Your task to perform on an android device: turn on data saver in the chrome app Image 0: 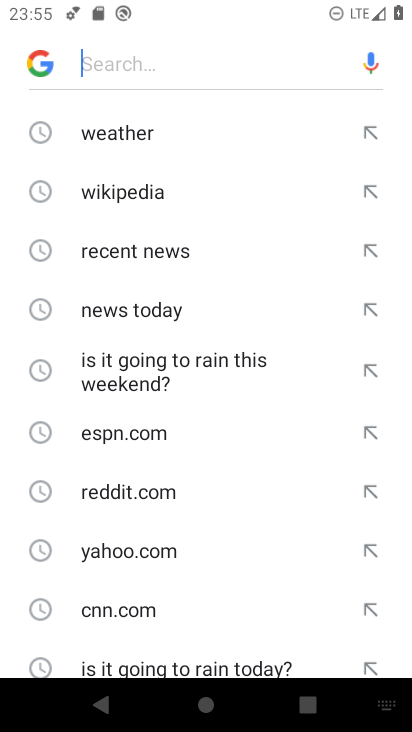
Step 0: press home button
Your task to perform on an android device: turn on data saver in the chrome app Image 1: 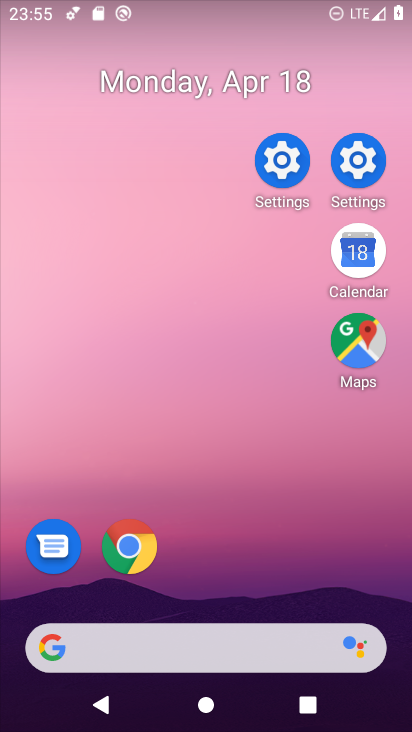
Step 1: drag from (289, 710) to (197, 172)
Your task to perform on an android device: turn on data saver in the chrome app Image 2: 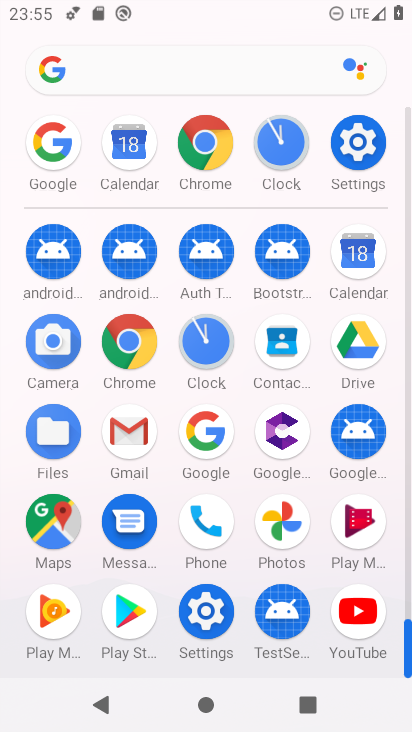
Step 2: click (202, 140)
Your task to perform on an android device: turn on data saver in the chrome app Image 3: 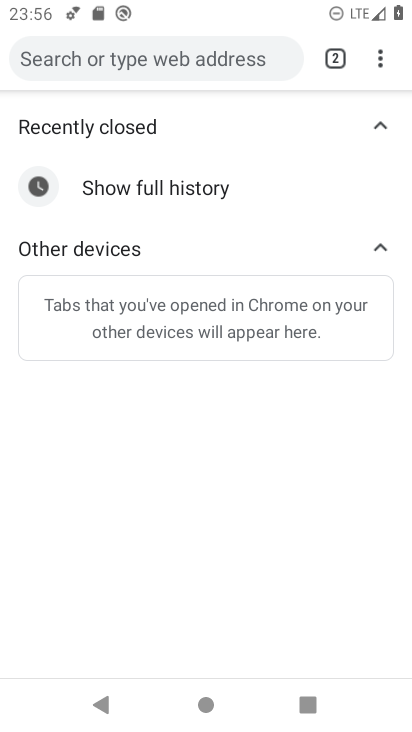
Step 3: press home button
Your task to perform on an android device: turn on data saver in the chrome app Image 4: 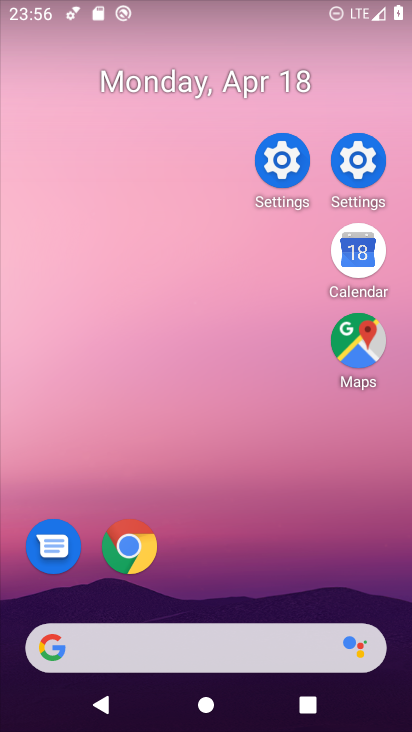
Step 4: drag from (224, 462) to (172, 100)
Your task to perform on an android device: turn on data saver in the chrome app Image 5: 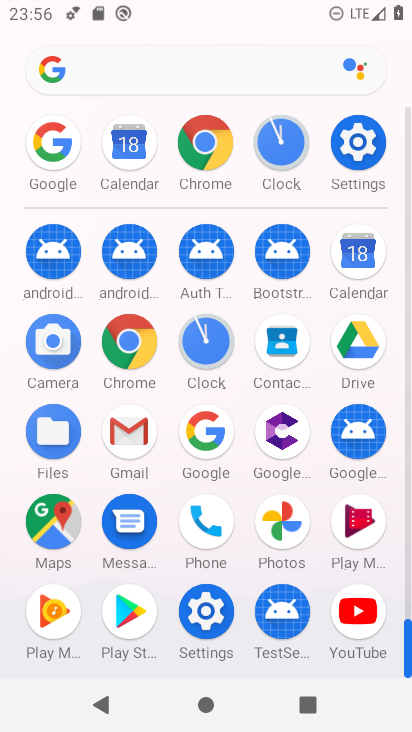
Step 5: click (195, 143)
Your task to perform on an android device: turn on data saver in the chrome app Image 6: 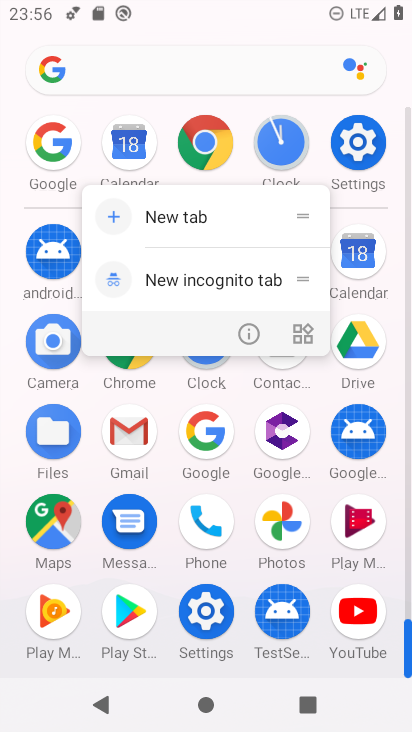
Step 6: click (196, 142)
Your task to perform on an android device: turn on data saver in the chrome app Image 7: 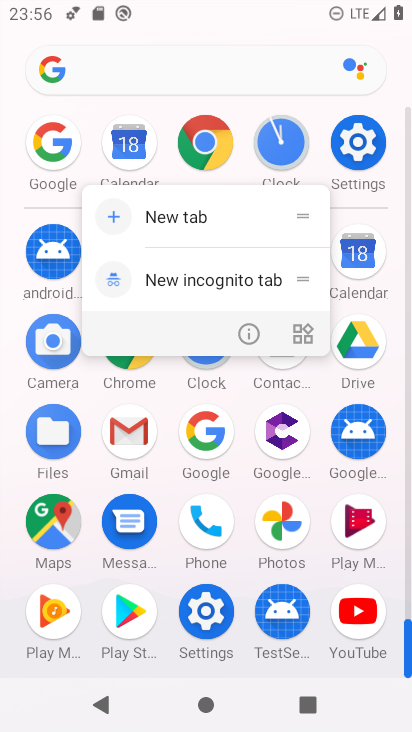
Step 7: click (196, 142)
Your task to perform on an android device: turn on data saver in the chrome app Image 8: 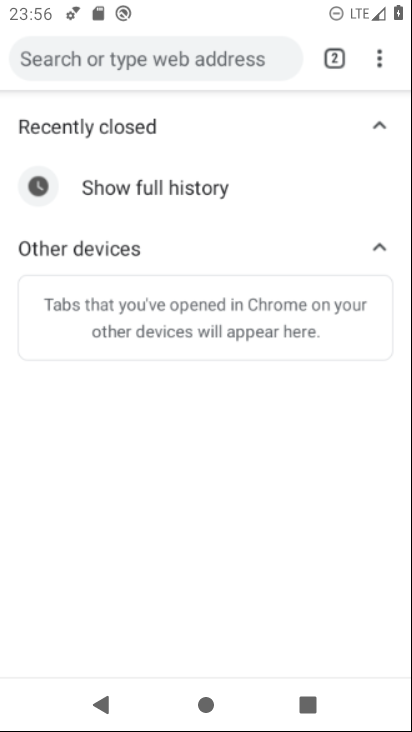
Step 8: click (196, 142)
Your task to perform on an android device: turn on data saver in the chrome app Image 9: 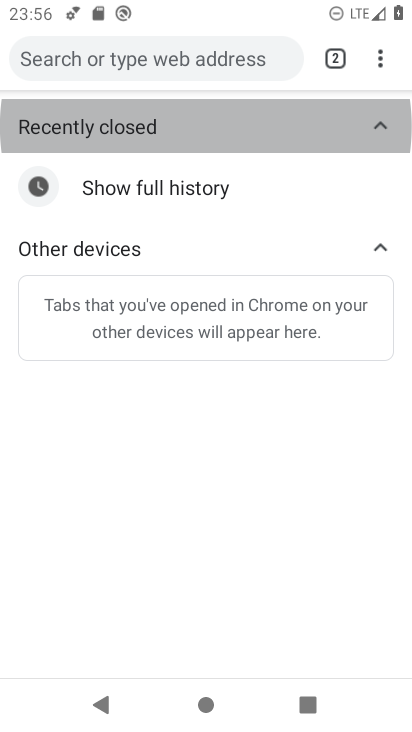
Step 9: click (196, 142)
Your task to perform on an android device: turn on data saver in the chrome app Image 10: 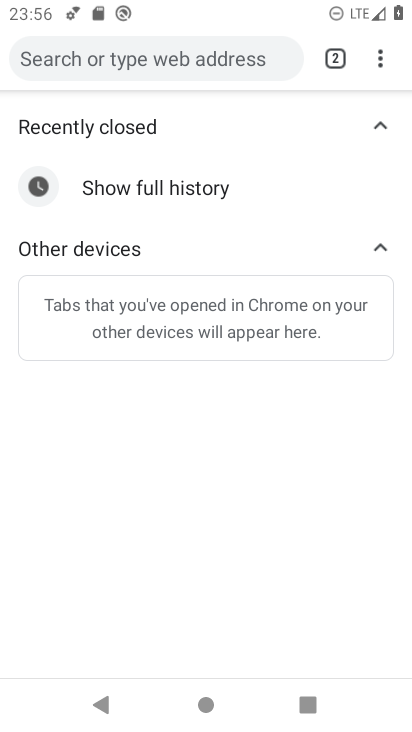
Step 10: click (380, 51)
Your task to perform on an android device: turn on data saver in the chrome app Image 11: 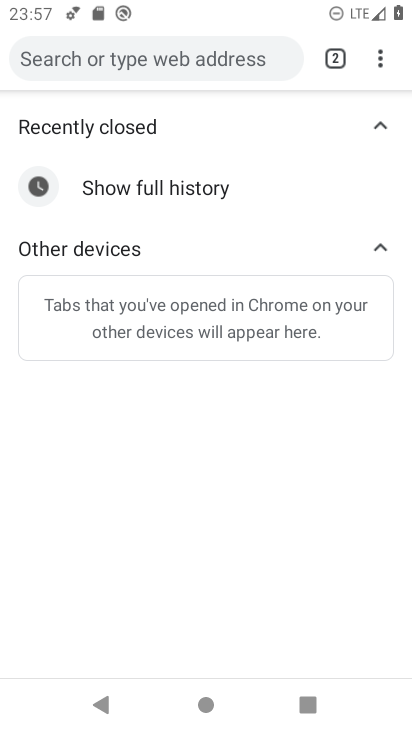
Step 11: click (380, 51)
Your task to perform on an android device: turn on data saver in the chrome app Image 12: 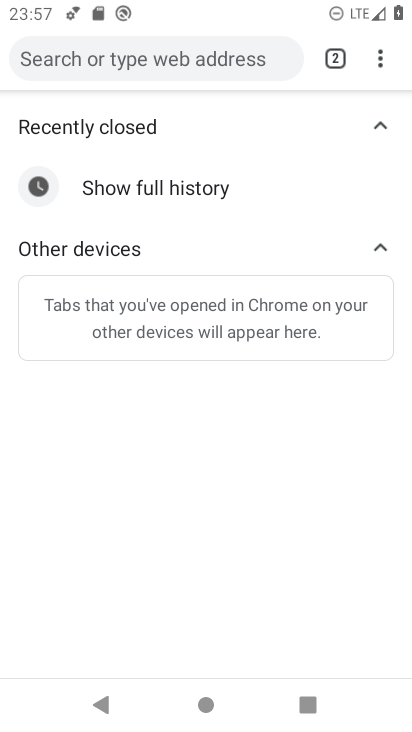
Step 12: click (380, 52)
Your task to perform on an android device: turn on data saver in the chrome app Image 13: 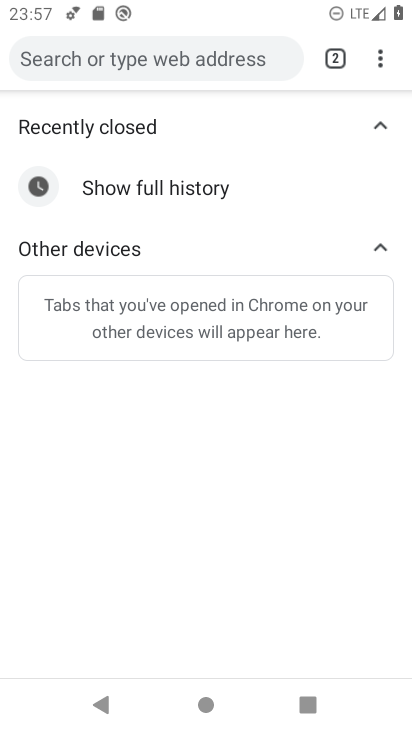
Step 13: click (380, 52)
Your task to perform on an android device: turn on data saver in the chrome app Image 14: 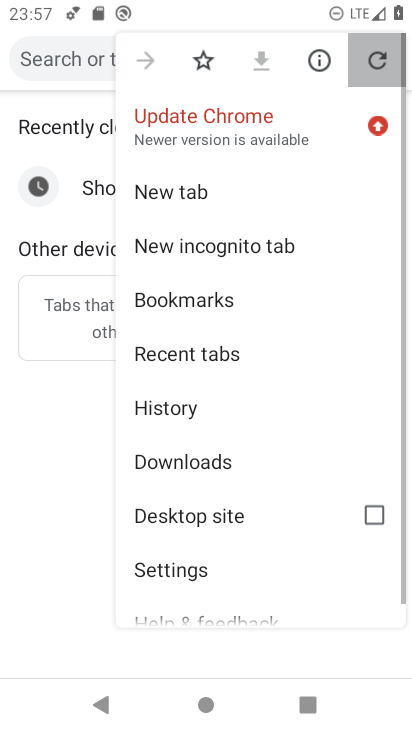
Step 14: click (381, 53)
Your task to perform on an android device: turn on data saver in the chrome app Image 15: 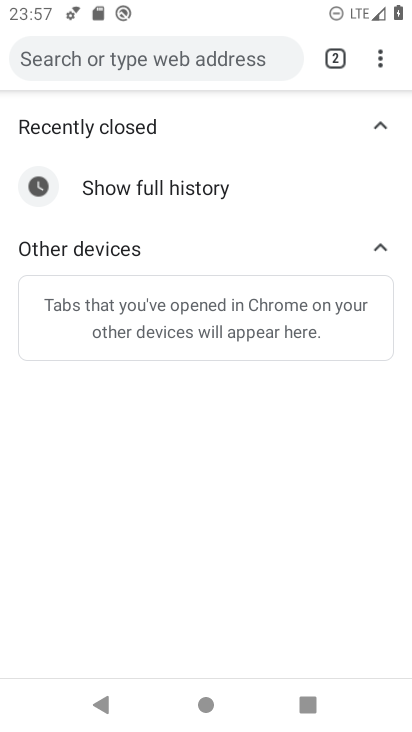
Step 15: click (384, 57)
Your task to perform on an android device: turn on data saver in the chrome app Image 16: 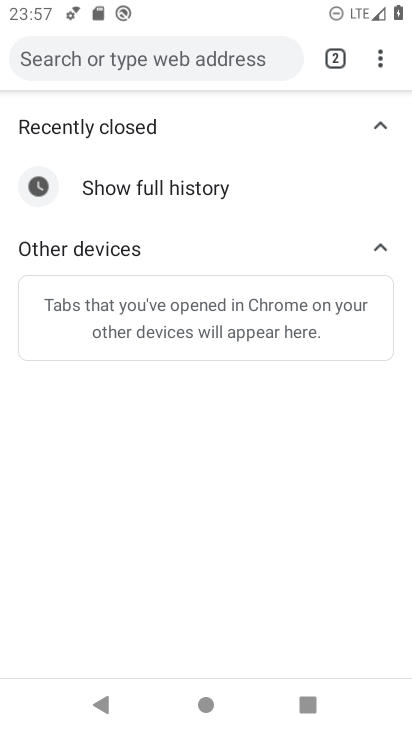
Step 16: click (375, 57)
Your task to perform on an android device: turn on data saver in the chrome app Image 17: 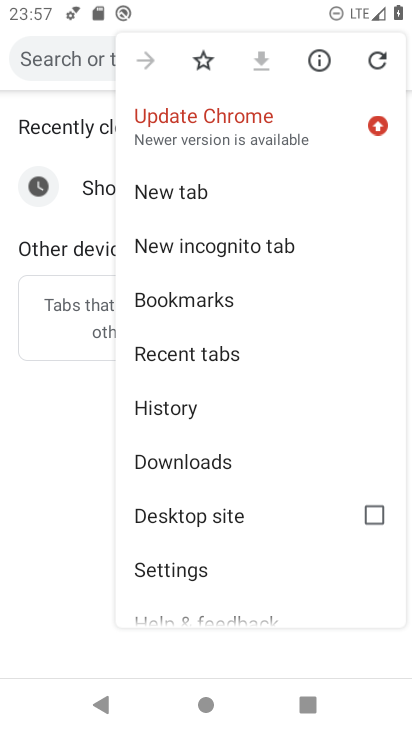
Step 17: click (159, 566)
Your task to perform on an android device: turn on data saver in the chrome app Image 18: 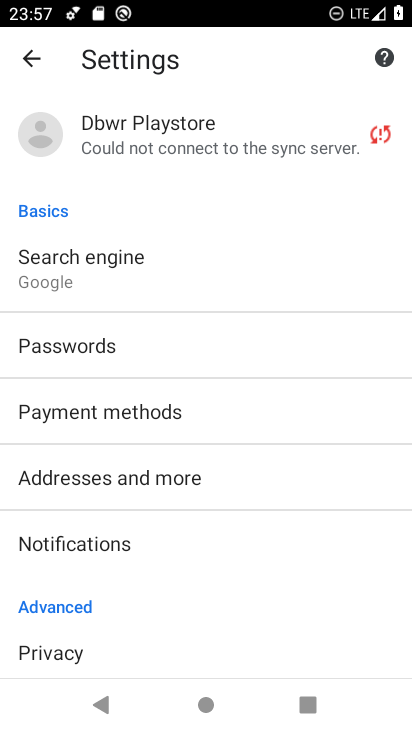
Step 18: drag from (151, 599) to (210, 104)
Your task to perform on an android device: turn on data saver in the chrome app Image 19: 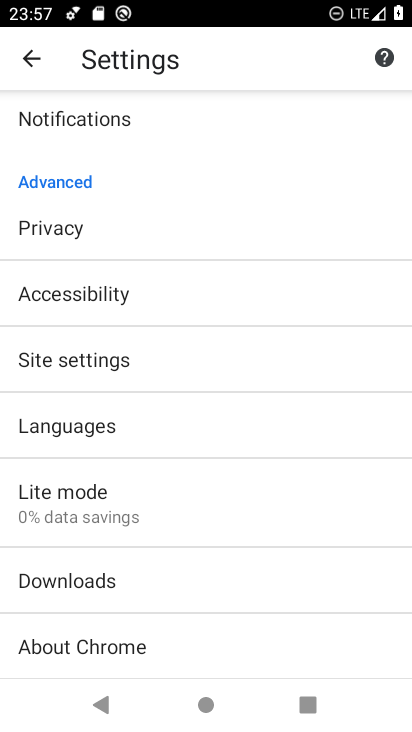
Step 19: drag from (145, 591) to (171, 144)
Your task to perform on an android device: turn on data saver in the chrome app Image 20: 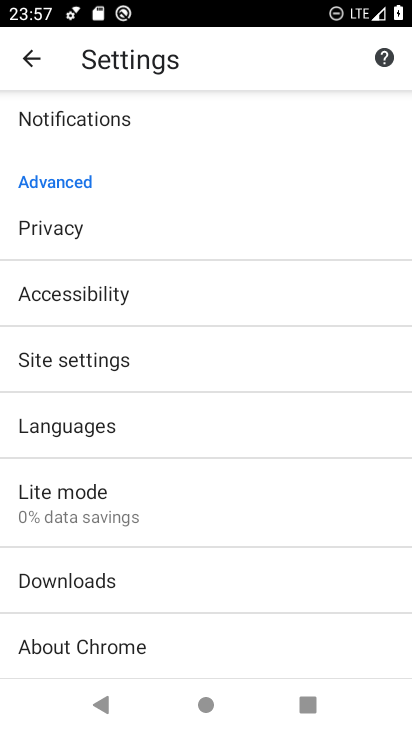
Step 20: click (69, 497)
Your task to perform on an android device: turn on data saver in the chrome app Image 21: 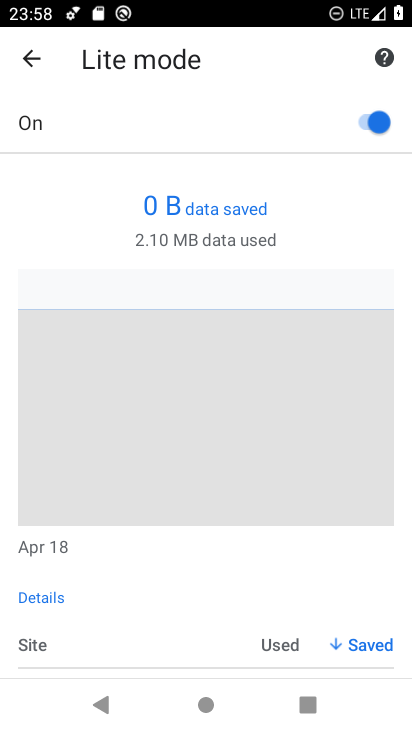
Step 21: task complete